Your task to perform on an android device: find photos in the google photos app Image 0: 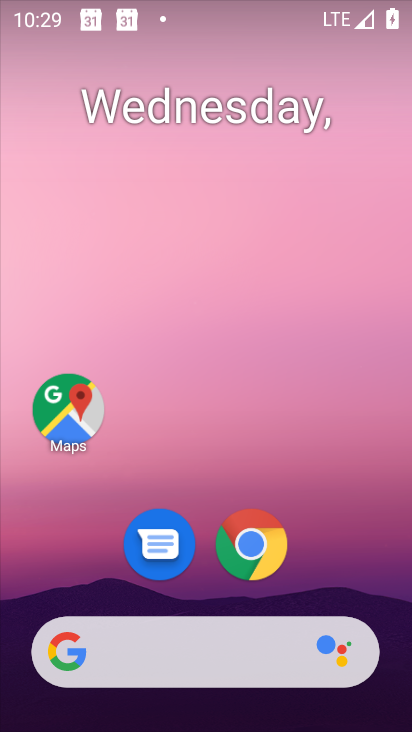
Step 0: drag from (207, 582) to (248, 67)
Your task to perform on an android device: find photos in the google photos app Image 1: 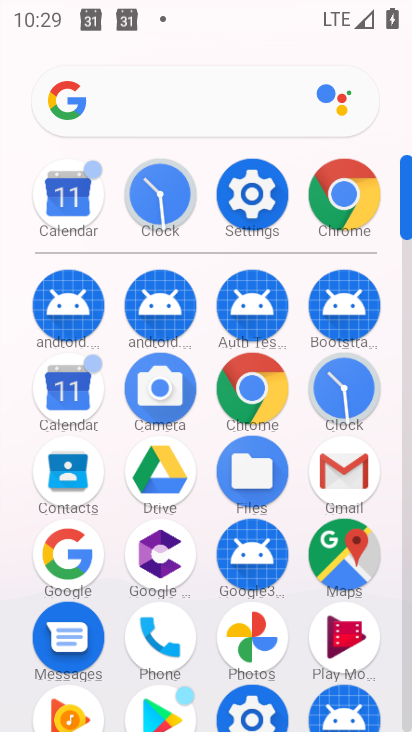
Step 1: click (252, 638)
Your task to perform on an android device: find photos in the google photos app Image 2: 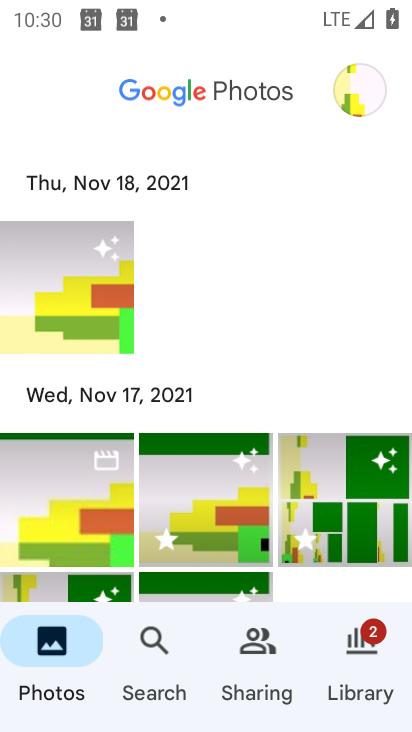
Step 2: task complete